Your task to perform on an android device: Open CNN.com Image 0: 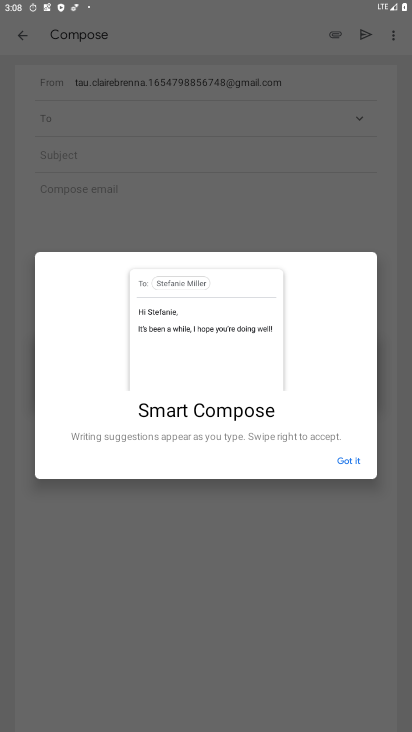
Step 0: press home button
Your task to perform on an android device: Open CNN.com Image 1: 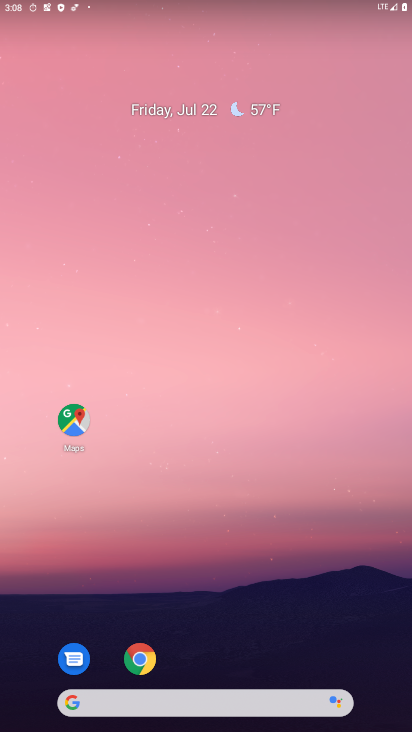
Step 1: click (141, 668)
Your task to perform on an android device: Open CNN.com Image 2: 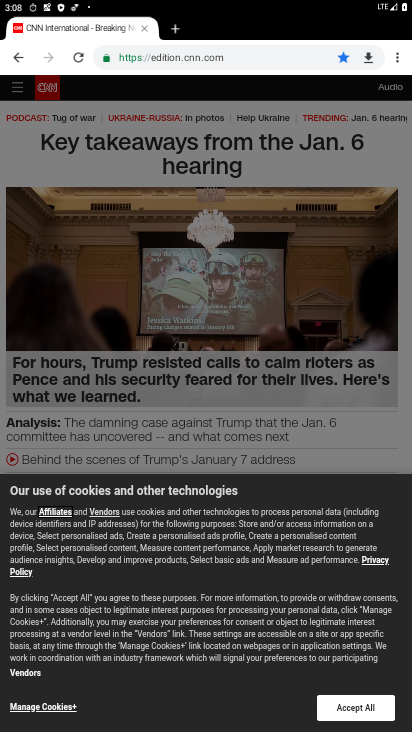
Step 2: task complete